Your task to perform on an android device: turn on improve location accuracy Image 0: 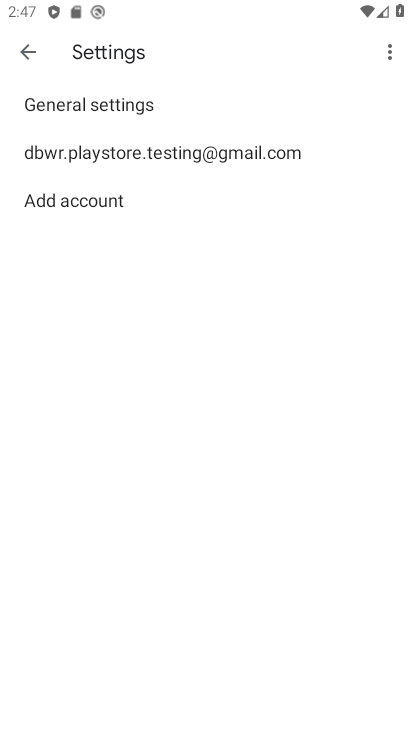
Step 0: press home button
Your task to perform on an android device: turn on improve location accuracy Image 1: 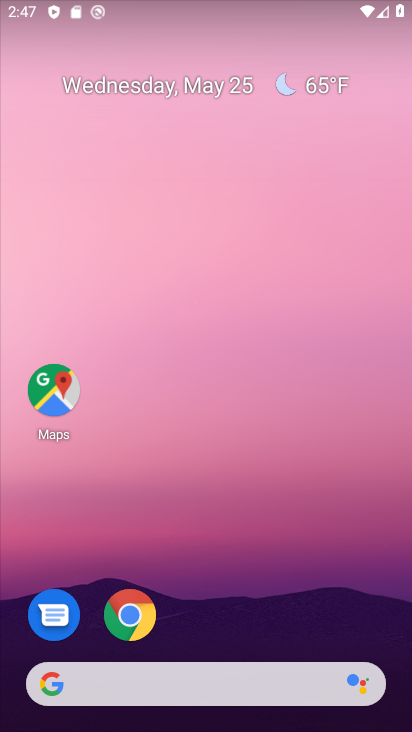
Step 1: drag from (271, 574) to (331, 3)
Your task to perform on an android device: turn on improve location accuracy Image 2: 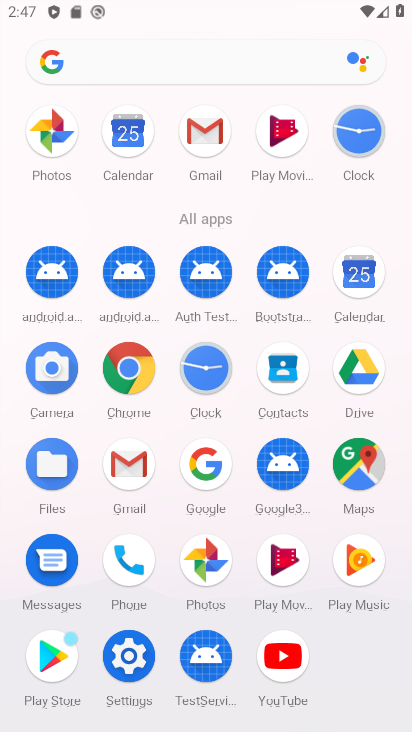
Step 2: drag from (229, 216) to (288, 11)
Your task to perform on an android device: turn on improve location accuracy Image 3: 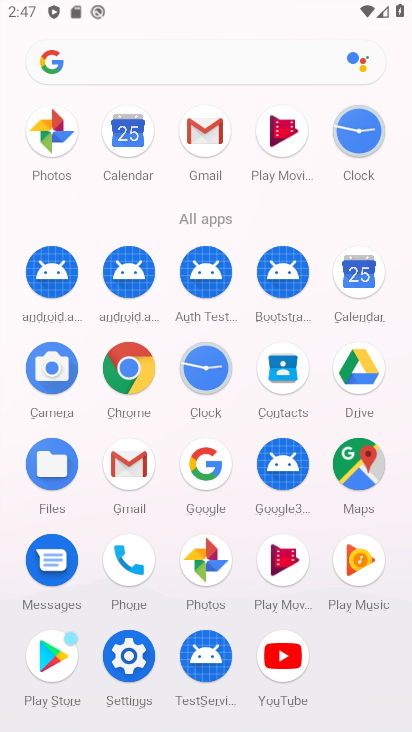
Step 3: click (125, 677)
Your task to perform on an android device: turn on improve location accuracy Image 4: 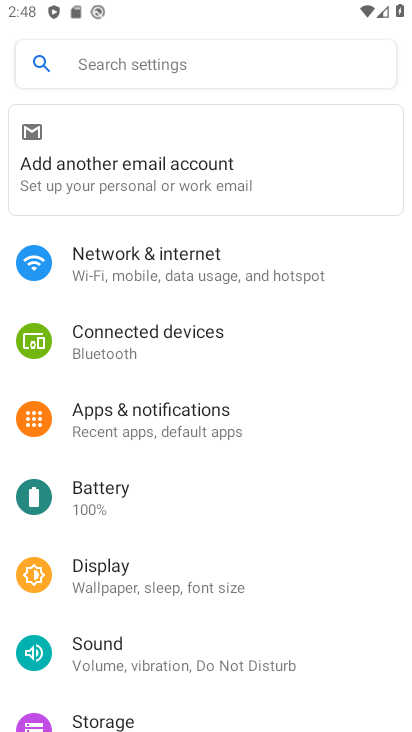
Step 4: drag from (200, 696) to (174, 210)
Your task to perform on an android device: turn on improve location accuracy Image 5: 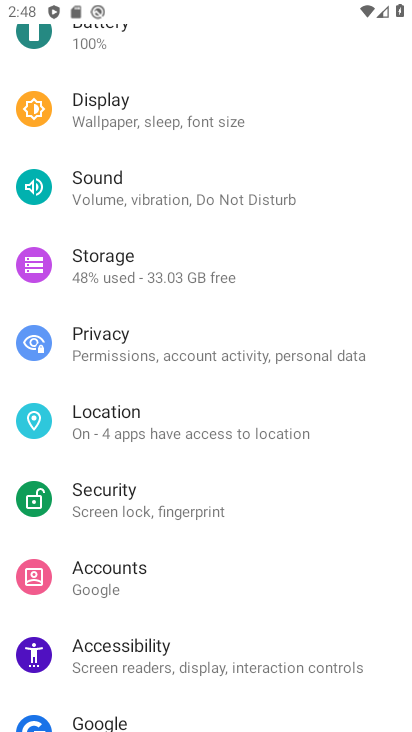
Step 5: click (128, 406)
Your task to perform on an android device: turn on improve location accuracy Image 6: 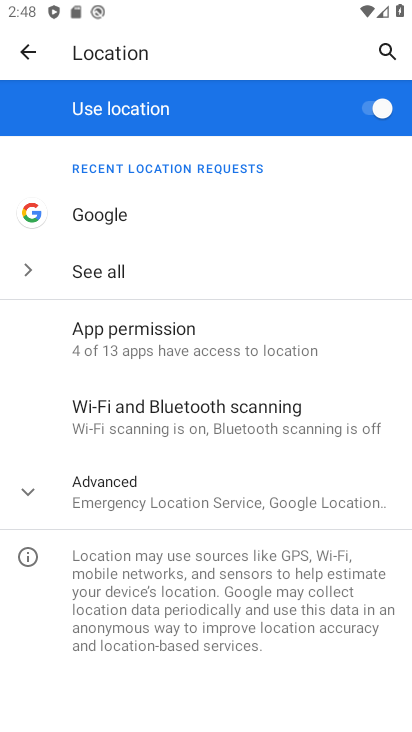
Step 6: click (213, 505)
Your task to perform on an android device: turn on improve location accuracy Image 7: 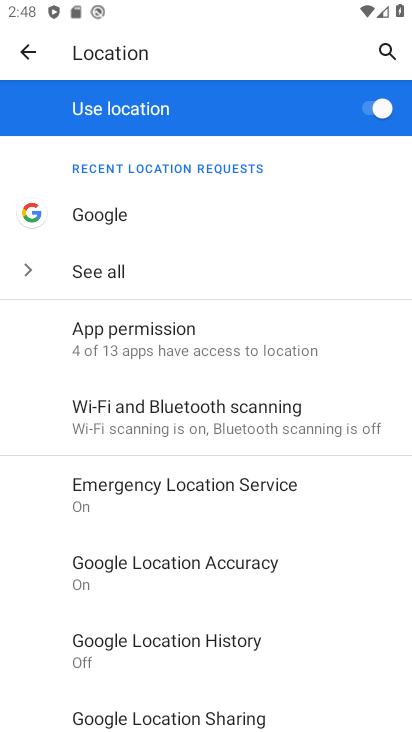
Step 7: click (165, 571)
Your task to perform on an android device: turn on improve location accuracy Image 8: 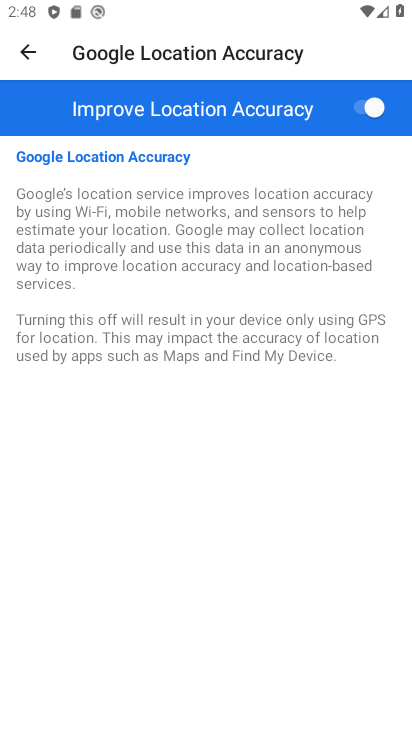
Step 8: task complete